Your task to perform on an android device: Open Google Chrome and click the shortcut for Amazon.com Image 0: 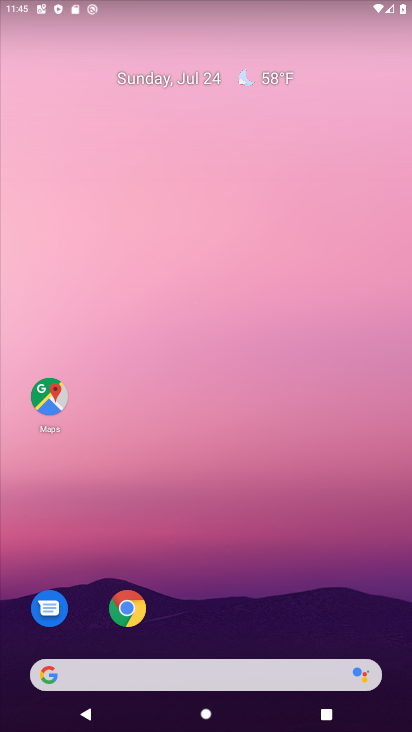
Step 0: click (122, 596)
Your task to perform on an android device: Open Google Chrome and click the shortcut for Amazon.com Image 1: 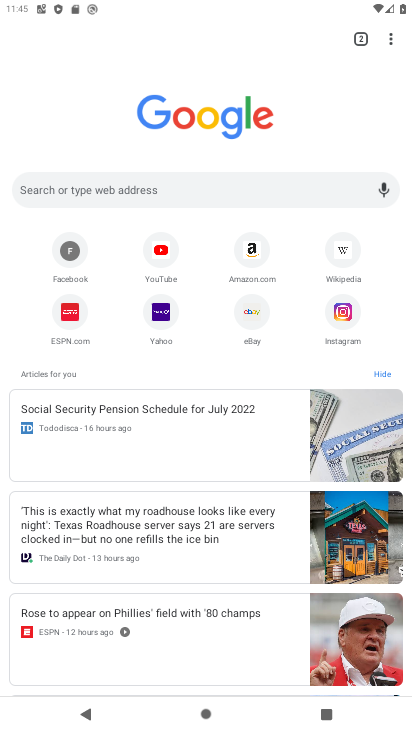
Step 1: click (254, 250)
Your task to perform on an android device: Open Google Chrome and click the shortcut for Amazon.com Image 2: 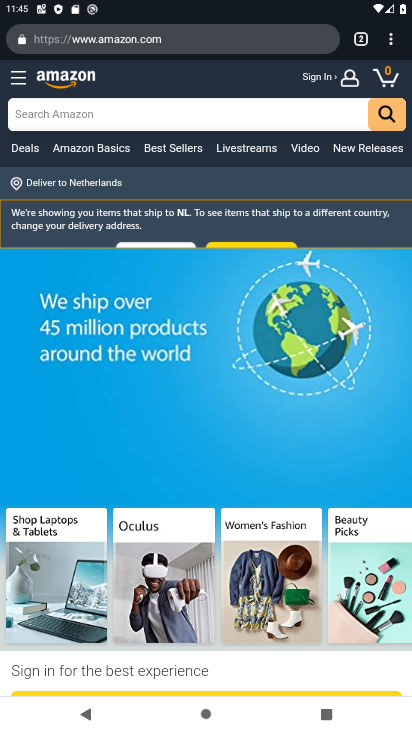
Step 2: task complete